Your task to perform on an android device: install app "Microsoft Authenticator" Image 0: 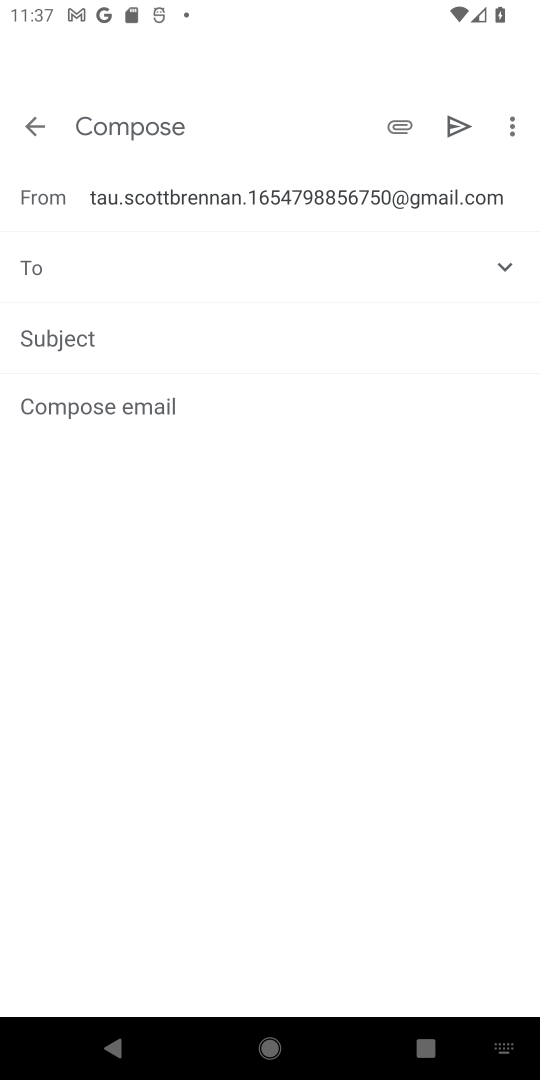
Step 0: press home button
Your task to perform on an android device: install app "Microsoft Authenticator" Image 1: 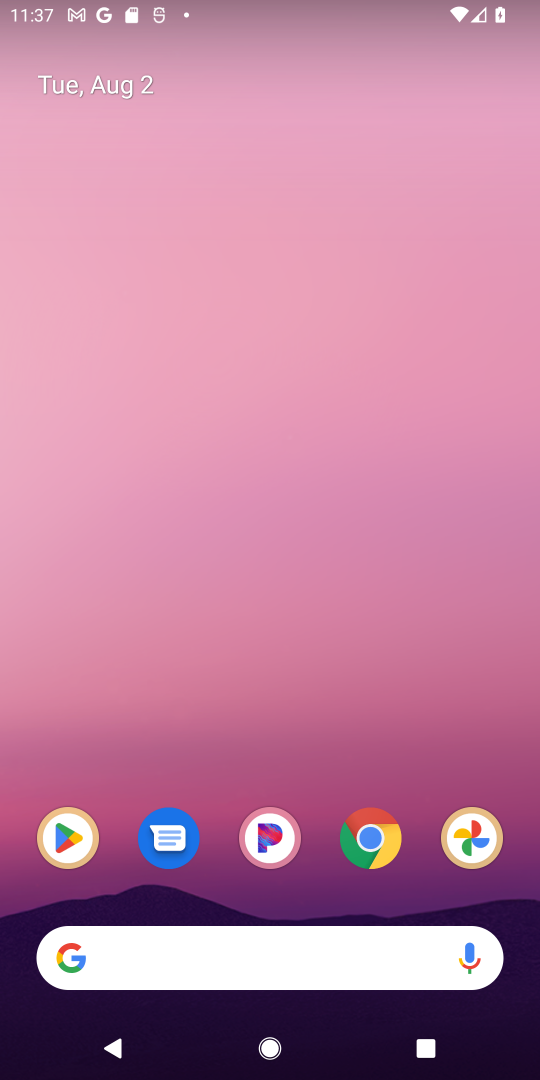
Step 1: click (56, 846)
Your task to perform on an android device: install app "Microsoft Authenticator" Image 2: 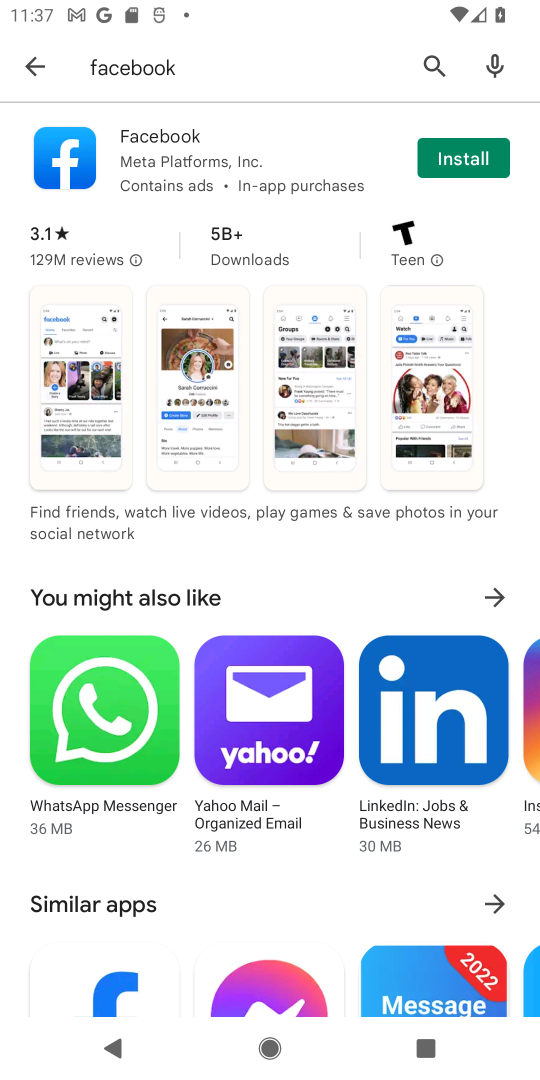
Step 2: click (425, 64)
Your task to perform on an android device: install app "Microsoft Authenticator" Image 3: 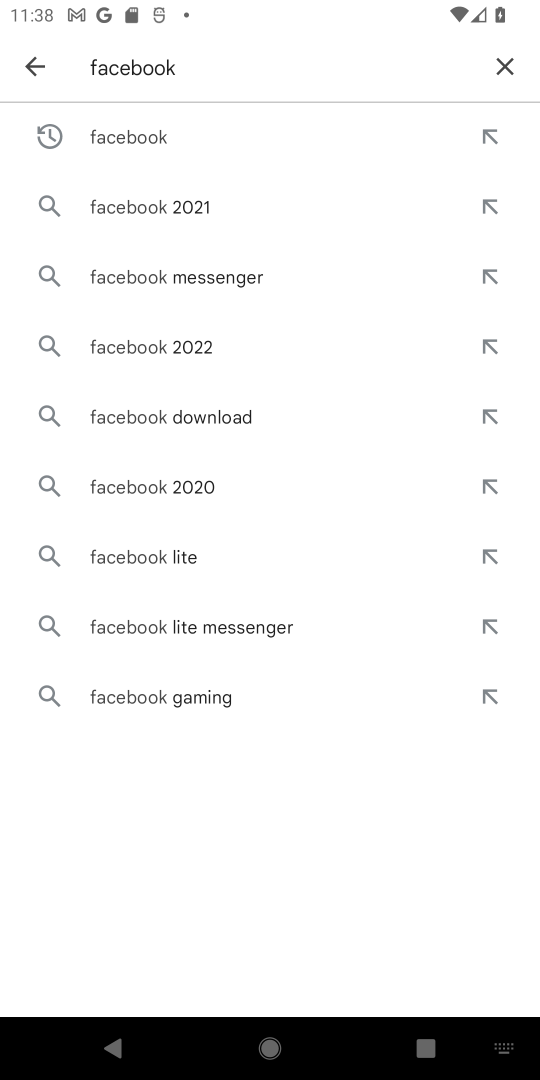
Step 3: click (507, 68)
Your task to perform on an android device: install app "Microsoft Authenticator" Image 4: 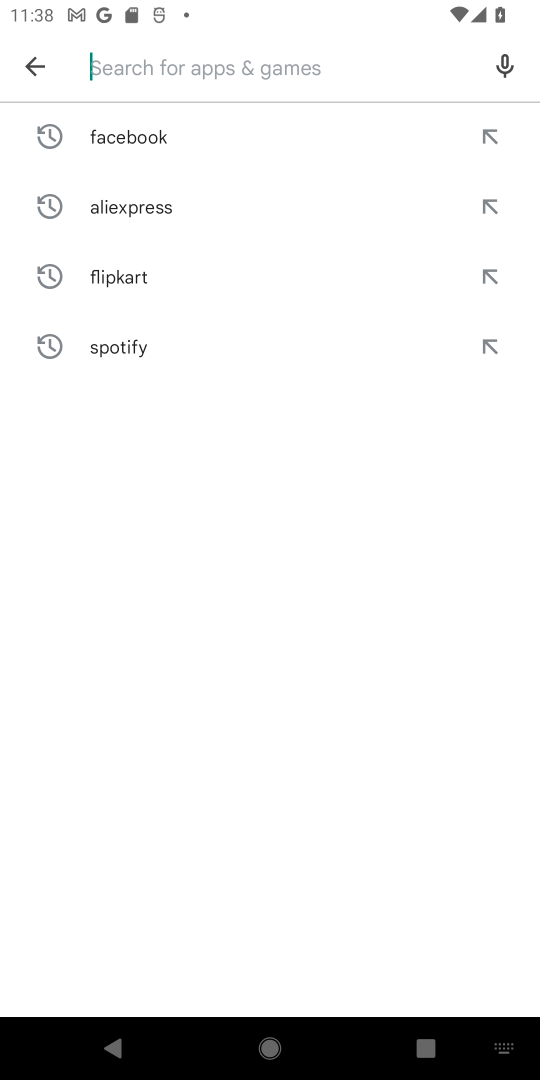
Step 4: type "Microsoft Authenticator"
Your task to perform on an android device: install app "Microsoft Authenticator" Image 5: 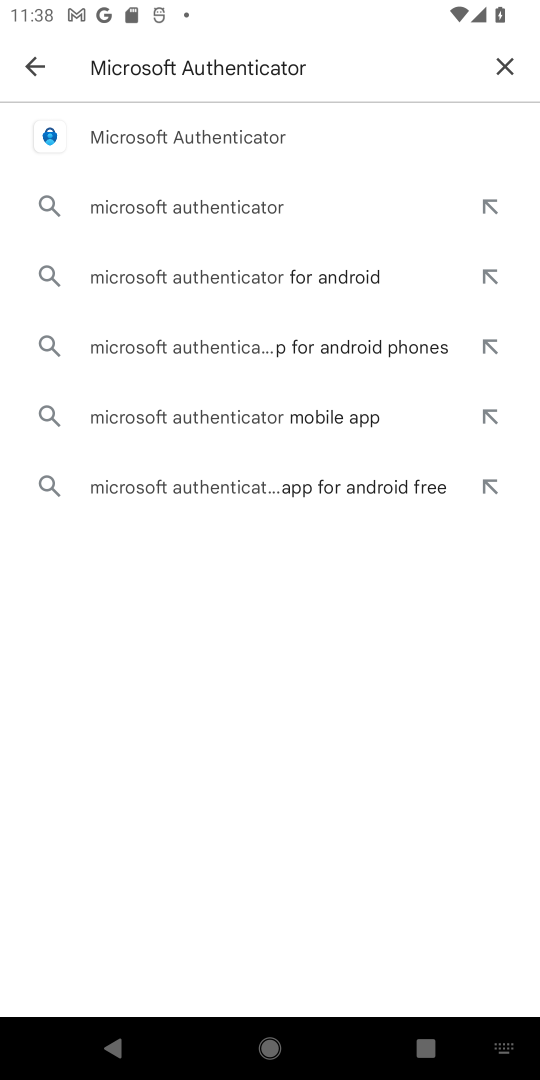
Step 5: click (293, 130)
Your task to perform on an android device: install app "Microsoft Authenticator" Image 6: 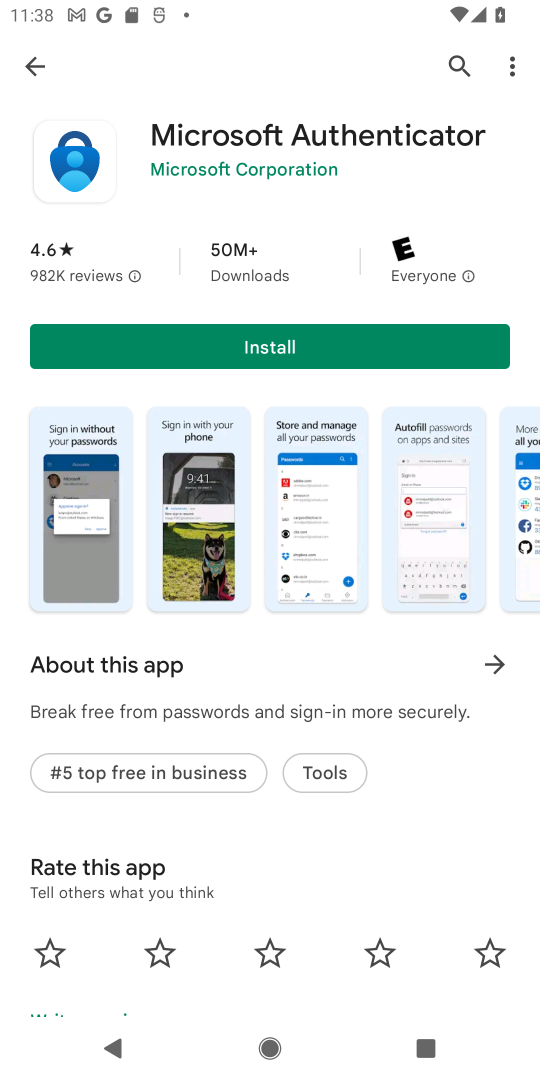
Step 6: click (239, 362)
Your task to perform on an android device: install app "Microsoft Authenticator" Image 7: 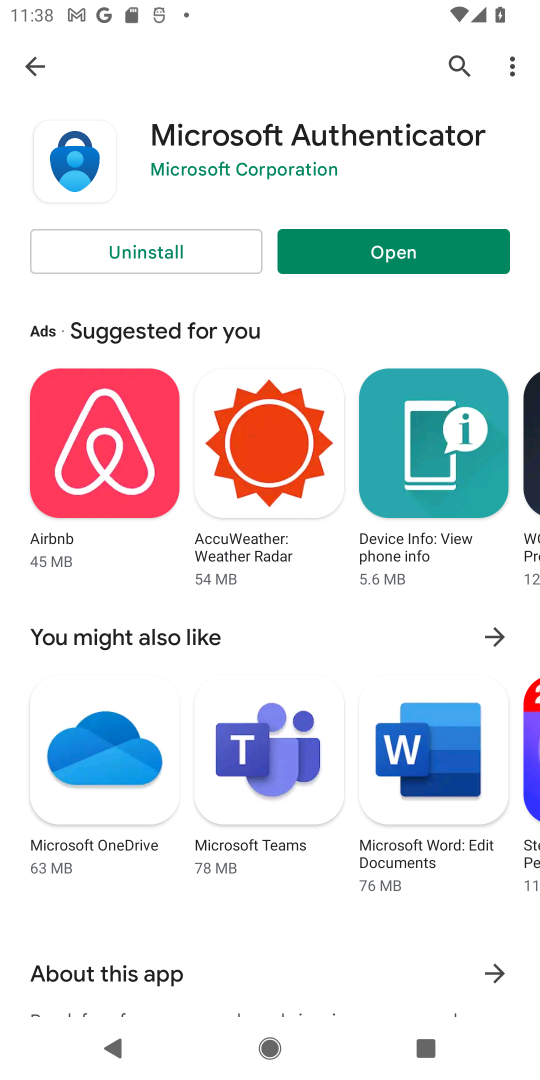
Step 7: task complete